Your task to perform on an android device: Go to notification settings Image 0: 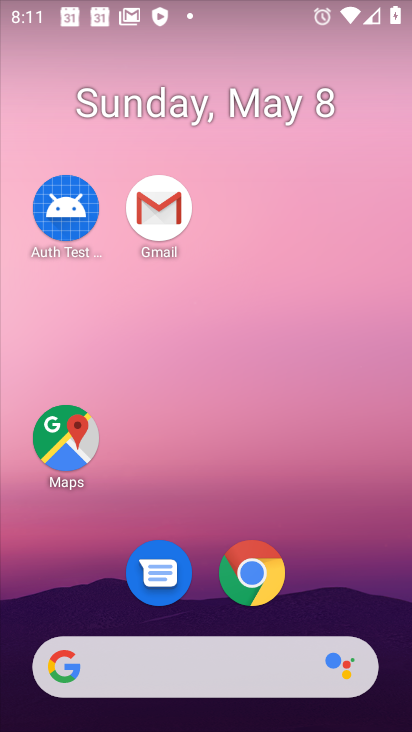
Step 0: drag from (360, 645) to (126, 45)
Your task to perform on an android device: Go to notification settings Image 1: 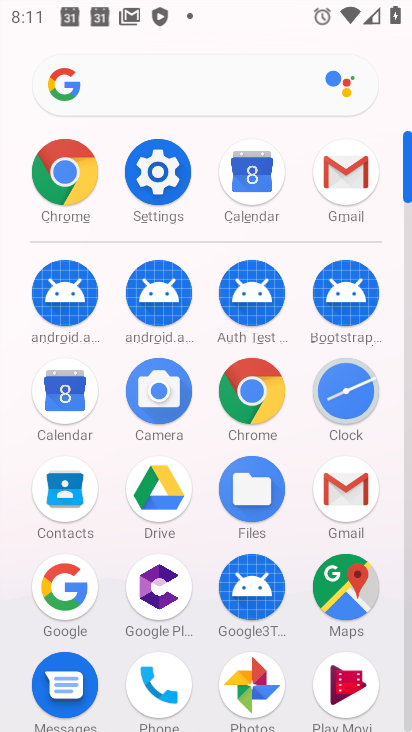
Step 1: click (159, 167)
Your task to perform on an android device: Go to notification settings Image 2: 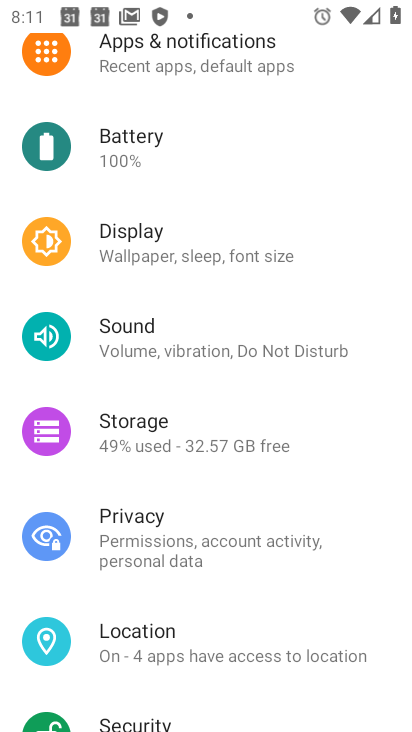
Step 2: drag from (190, 597) to (127, 185)
Your task to perform on an android device: Go to notification settings Image 3: 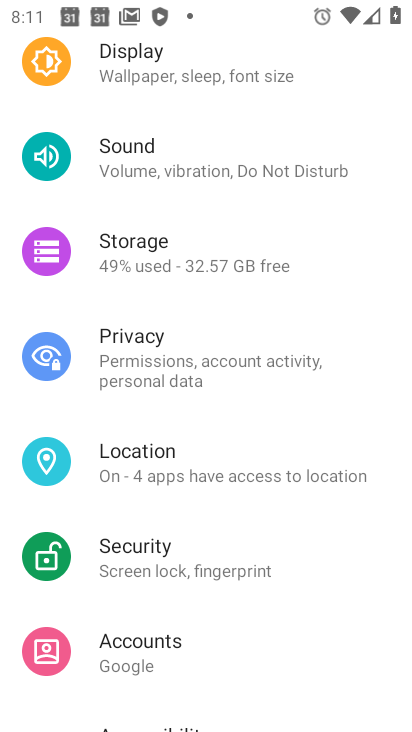
Step 3: drag from (219, 499) to (209, 202)
Your task to perform on an android device: Go to notification settings Image 4: 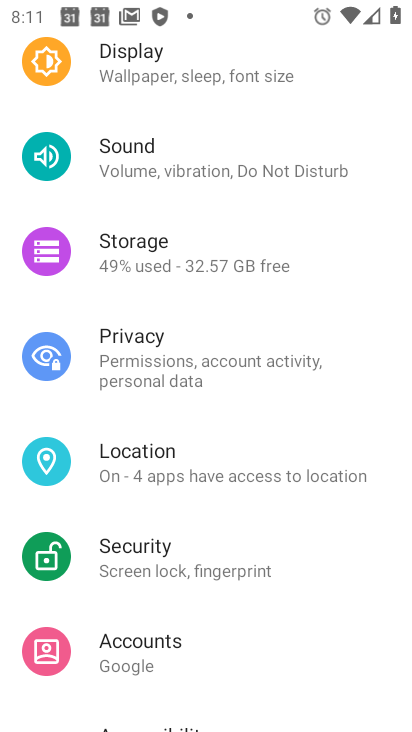
Step 4: drag from (150, 293) to (198, 538)
Your task to perform on an android device: Go to notification settings Image 5: 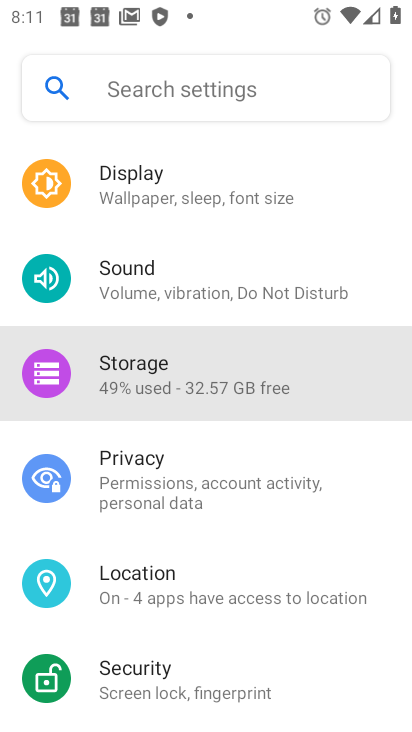
Step 5: drag from (129, 232) to (239, 611)
Your task to perform on an android device: Go to notification settings Image 6: 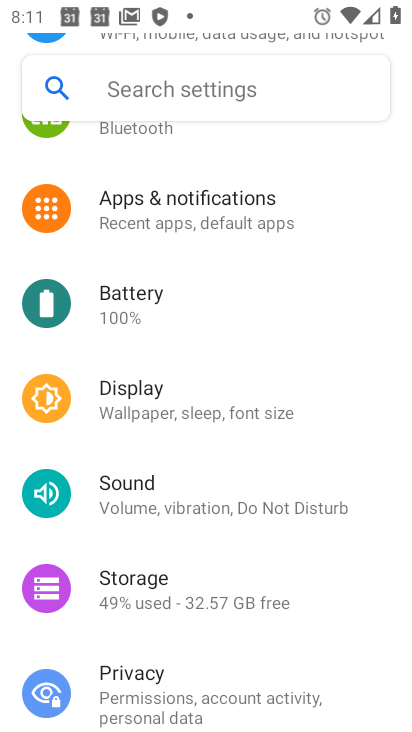
Step 6: click (211, 228)
Your task to perform on an android device: Go to notification settings Image 7: 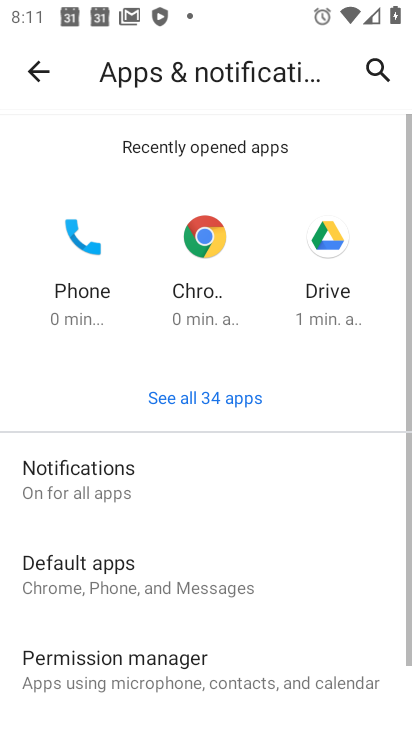
Step 7: click (90, 471)
Your task to perform on an android device: Go to notification settings Image 8: 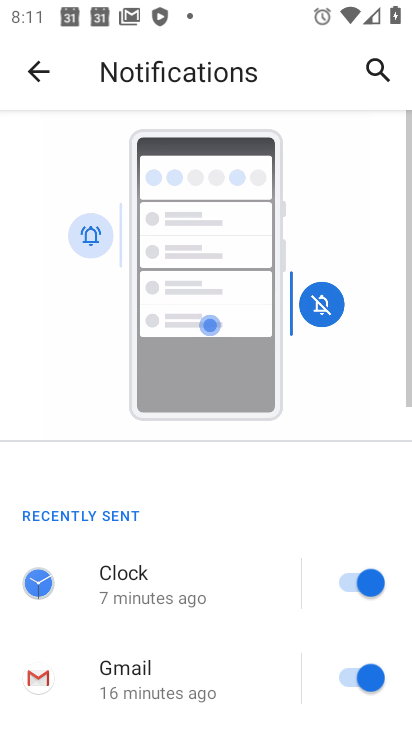
Step 8: drag from (248, 654) to (52, 158)
Your task to perform on an android device: Go to notification settings Image 9: 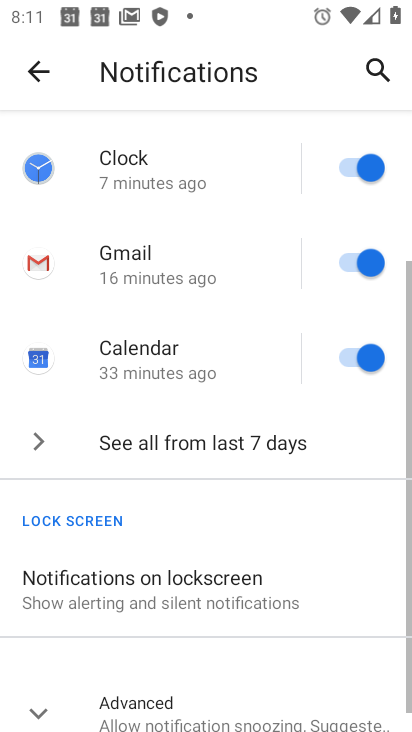
Step 9: drag from (189, 587) to (126, 156)
Your task to perform on an android device: Go to notification settings Image 10: 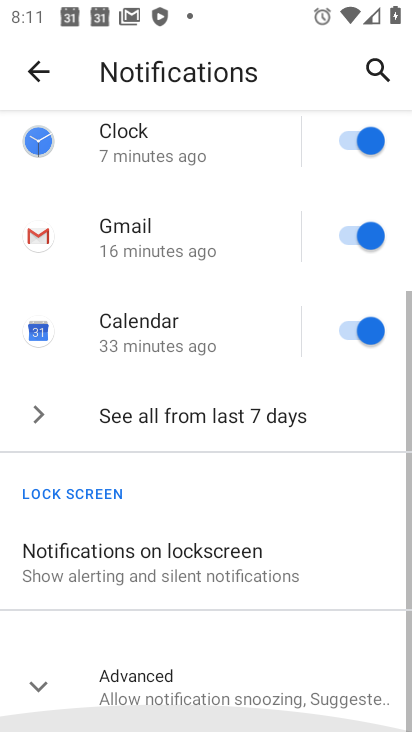
Step 10: drag from (248, 555) to (244, 135)
Your task to perform on an android device: Go to notification settings Image 11: 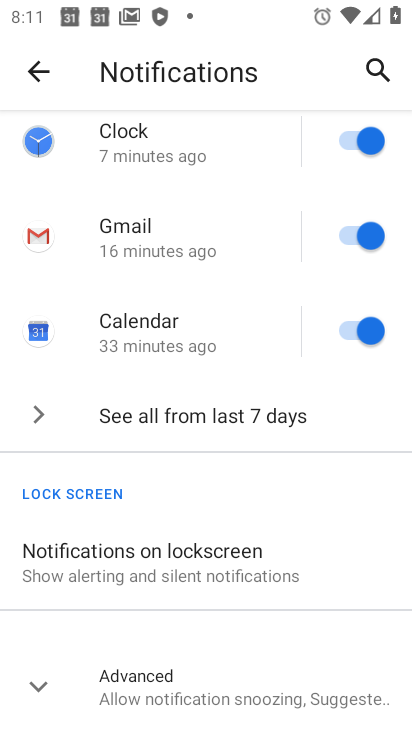
Step 11: click (182, 691)
Your task to perform on an android device: Go to notification settings Image 12: 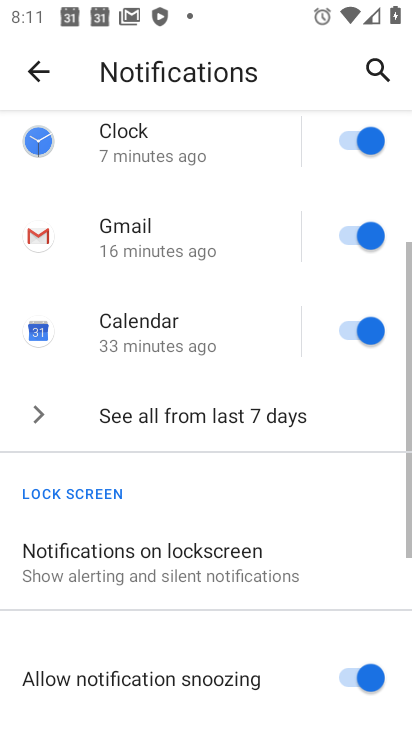
Step 12: task complete